Your task to perform on an android device: Open privacy settings Image 0: 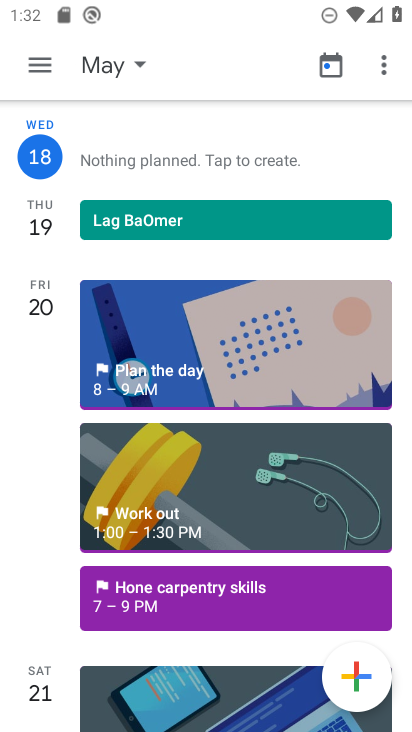
Step 0: press home button
Your task to perform on an android device: Open privacy settings Image 1: 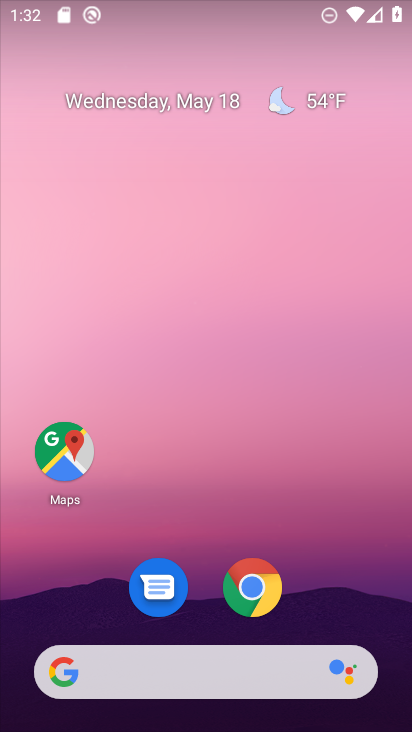
Step 1: click (271, 596)
Your task to perform on an android device: Open privacy settings Image 2: 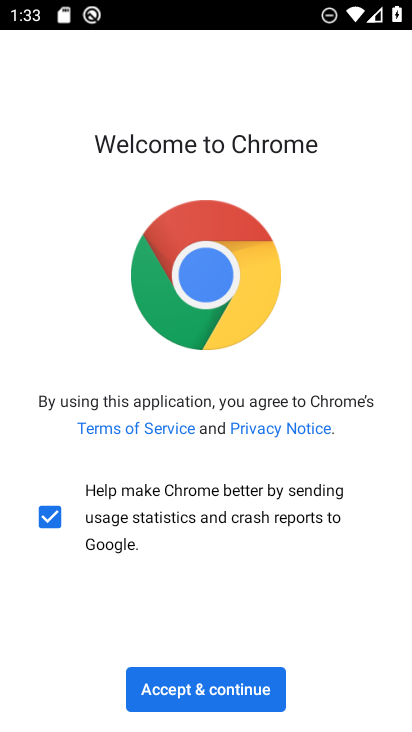
Step 2: click (234, 686)
Your task to perform on an android device: Open privacy settings Image 3: 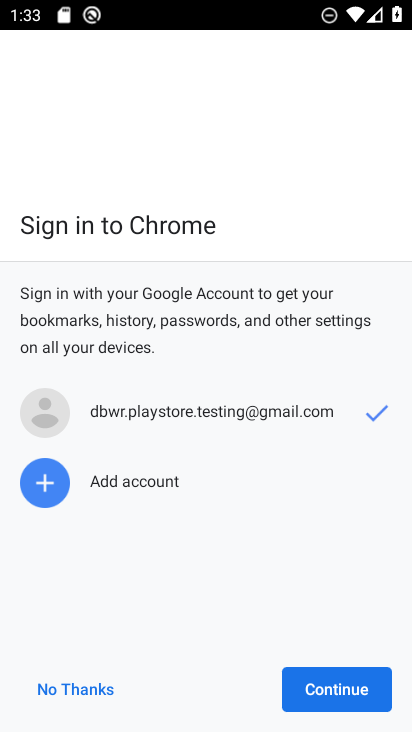
Step 3: click (343, 691)
Your task to perform on an android device: Open privacy settings Image 4: 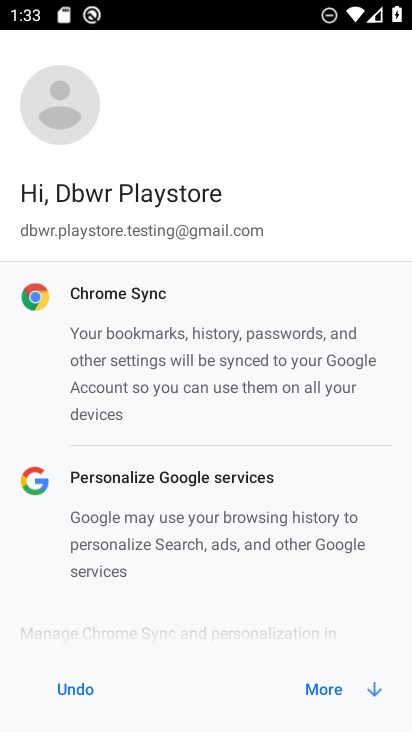
Step 4: click (344, 691)
Your task to perform on an android device: Open privacy settings Image 5: 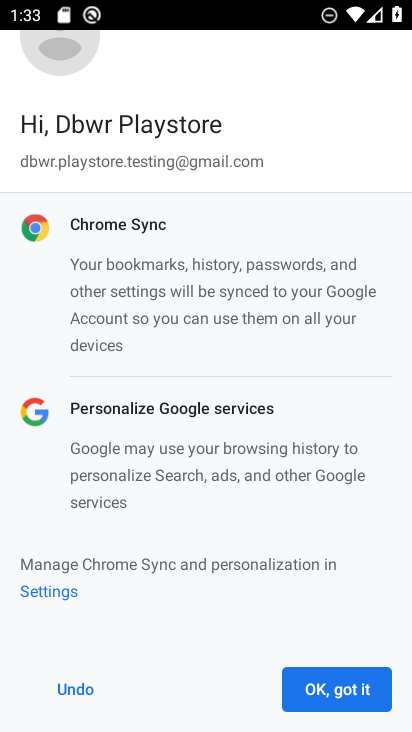
Step 5: click (344, 691)
Your task to perform on an android device: Open privacy settings Image 6: 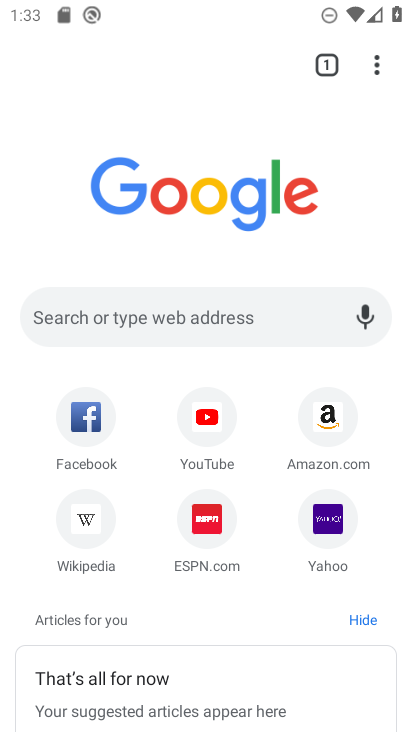
Step 6: drag from (378, 74) to (234, 534)
Your task to perform on an android device: Open privacy settings Image 7: 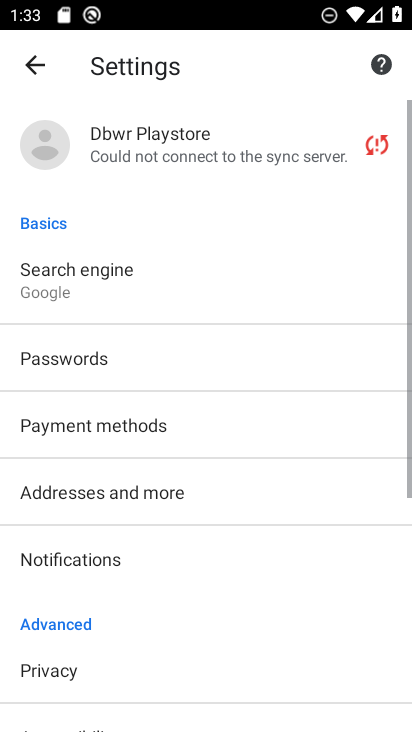
Step 7: click (185, 661)
Your task to perform on an android device: Open privacy settings Image 8: 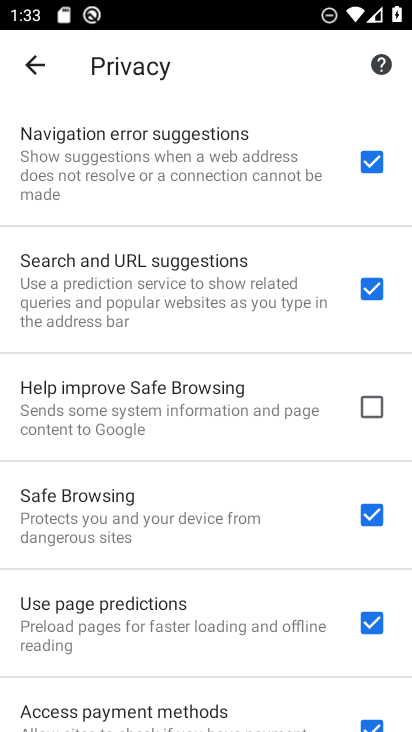
Step 8: task complete